Your task to perform on an android device: change the upload size in google photos Image 0: 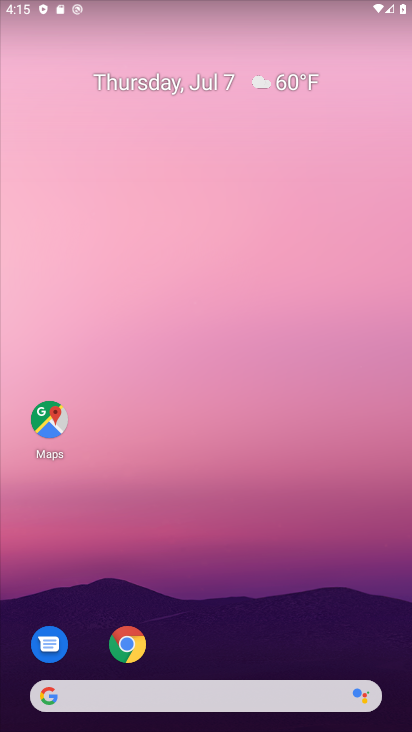
Step 0: drag from (235, 625) to (173, 106)
Your task to perform on an android device: change the upload size in google photos Image 1: 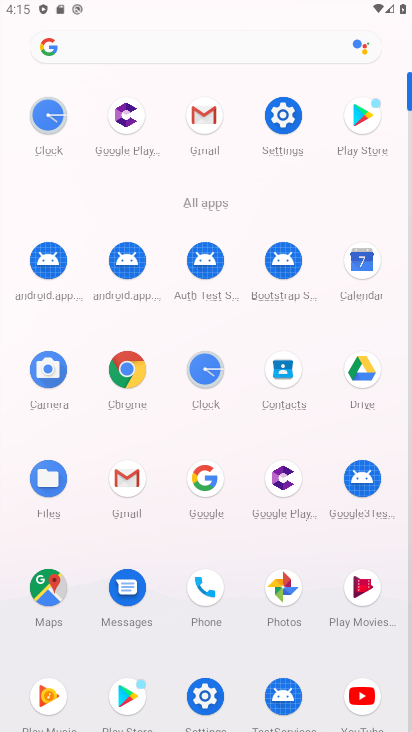
Step 1: click (287, 584)
Your task to perform on an android device: change the upload size in google photos Image 2: 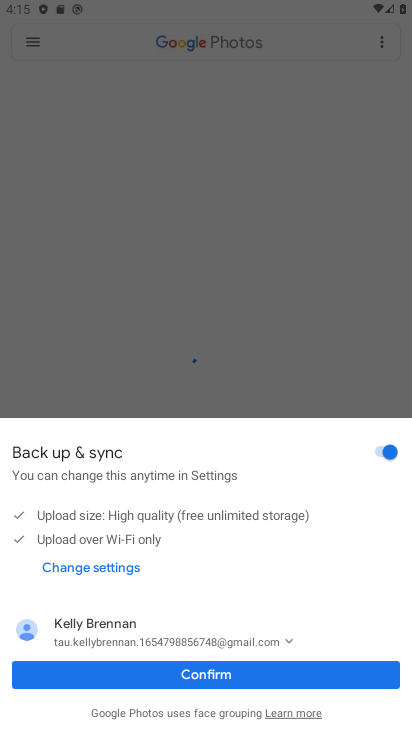
Step 2: click (233, 675)
Your task to perform on an android device: change the upload size in google photos Image 3: 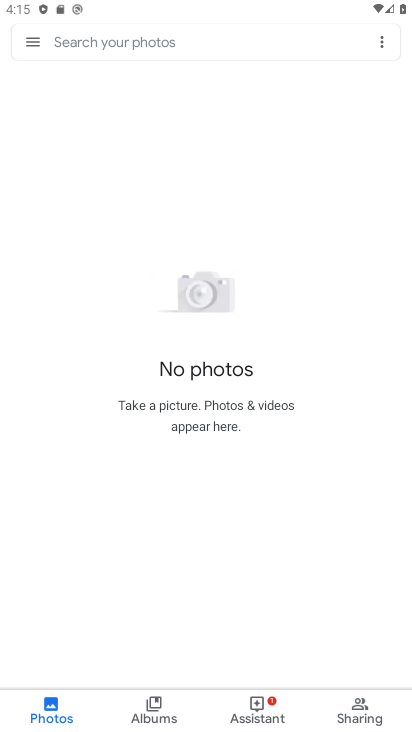
Step 3: click (34, 36)
Your task to perform on an android device: change the upload size in google photos Image 4: 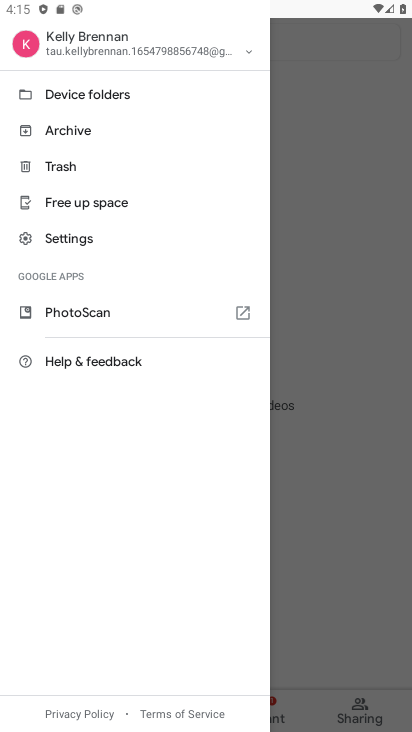
Step 4: click (81, 235)
Your task to perform on an android device: change the upload size in google photos Image 5: 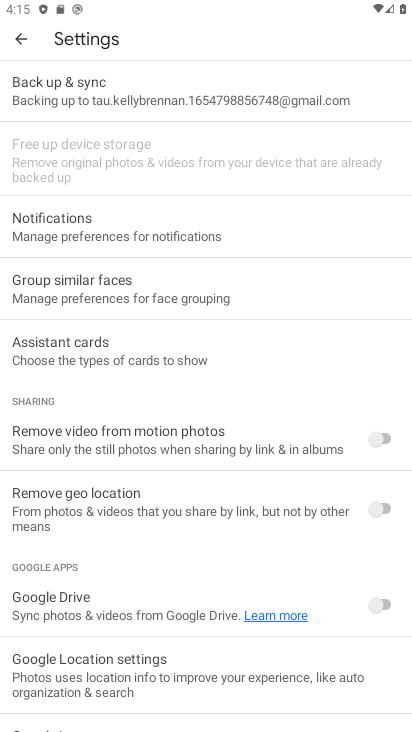
Step 5: click (164, 92)
Your task to perform on an android device: change the upload size in google photos Image 6: 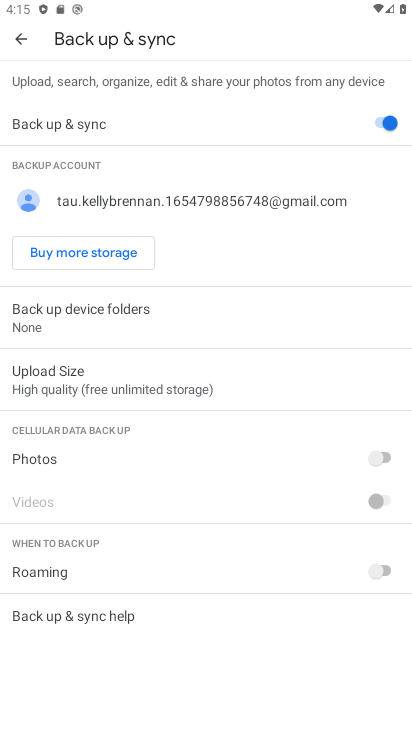
Step 6: click (134, 384)
Your task to perform on an android device: change the upload size in google photos Image 7: 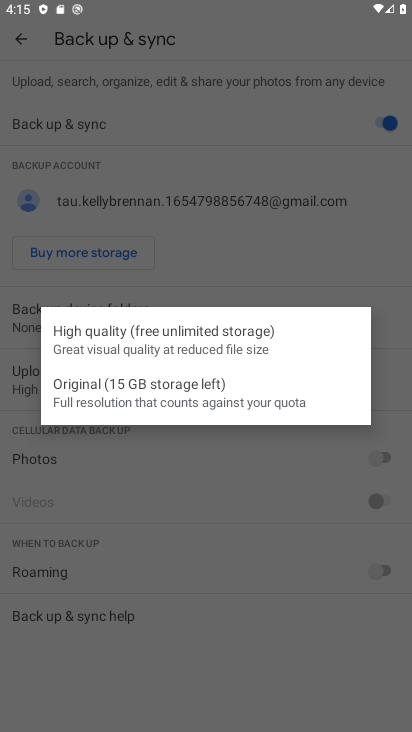
Step 7: click (146, 390)
Your task to perform on an android device: change the upload size in google photos Image 8: 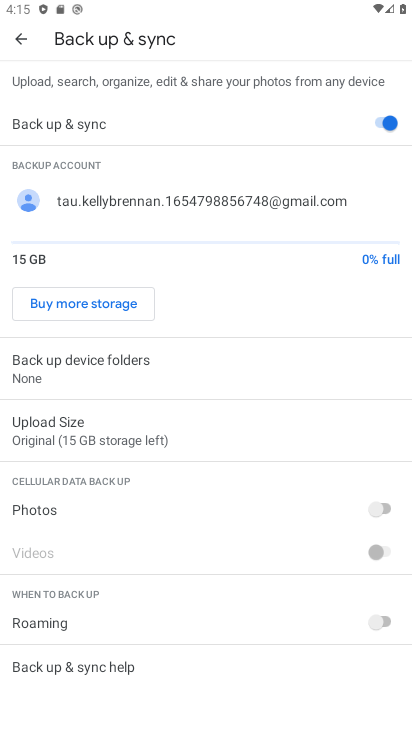
Step 8: task complete